Your task to perform on an android device: see creations saved in the google photos Image 0: 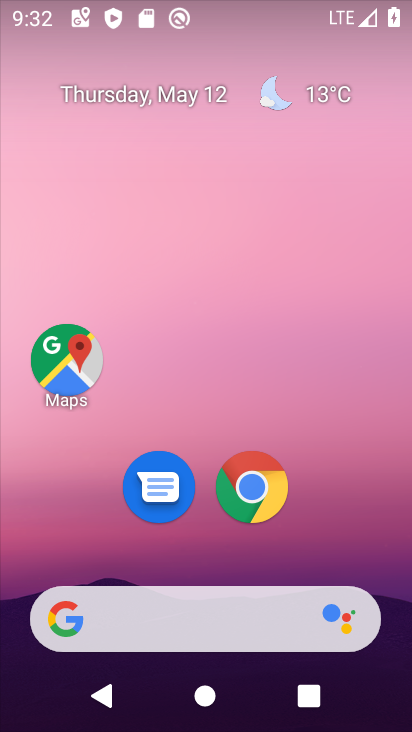
Step 0: drag from (347, 561) to (343, 16)
Your task to perform on an android device: see creations saved in the google photos Image 1: 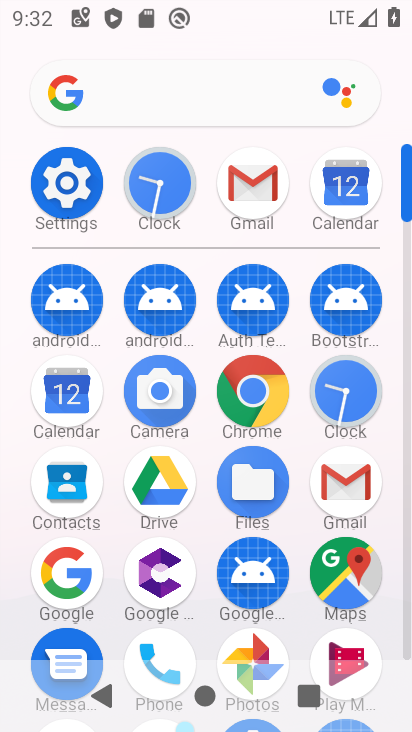
Step 1: click (253, 645)
Your task to perform on an android device: see creations saved in the google photos Image 2: 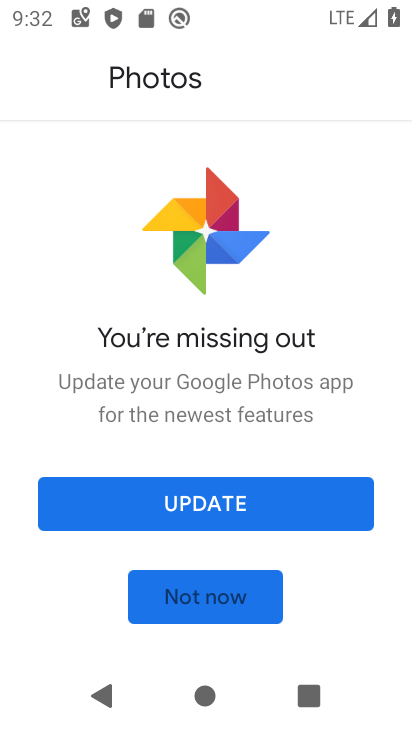
Step 2: click (238, 600)
Your task to perform on an android device: see creations saved in the google photos Image 3: 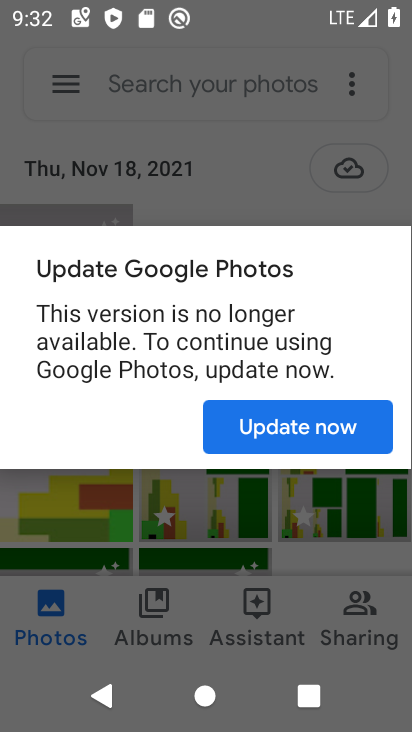
Step 3: click (271, 441)
Your task to perform on an android device: see creations saved in the google photos Image 4: 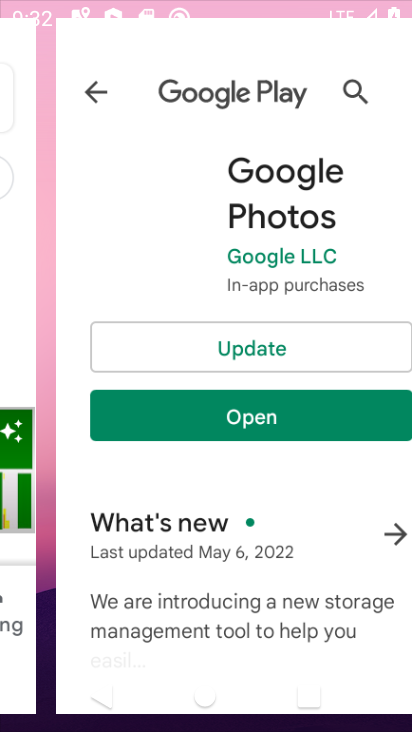
Step 4: click (280, 428)
Your task to perform on an android device: see creations saved in the google photos Image 5: 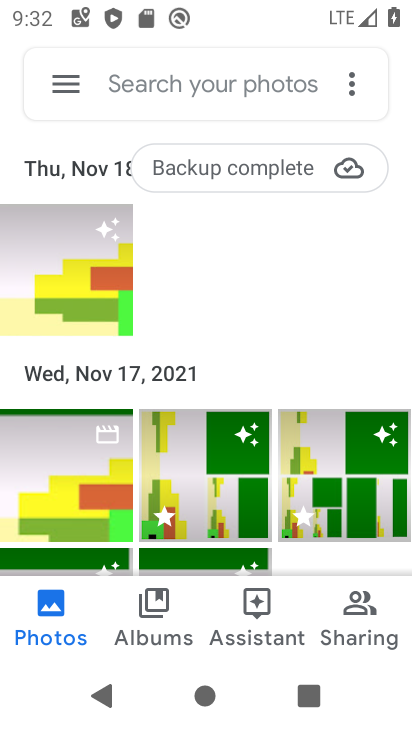
Step 5: click (140, 82)
Your task to perform on an android device: see creations saved in the google photos Image 6: 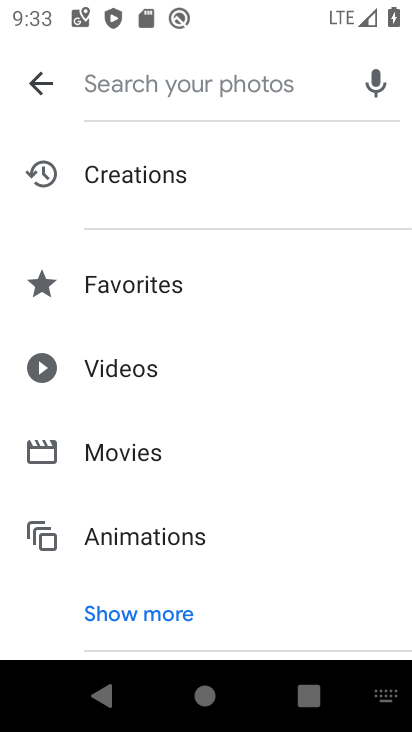
Step 6: click (167, 177)
Your task to perform on an android device: see creations saved in the google photos Image 7: 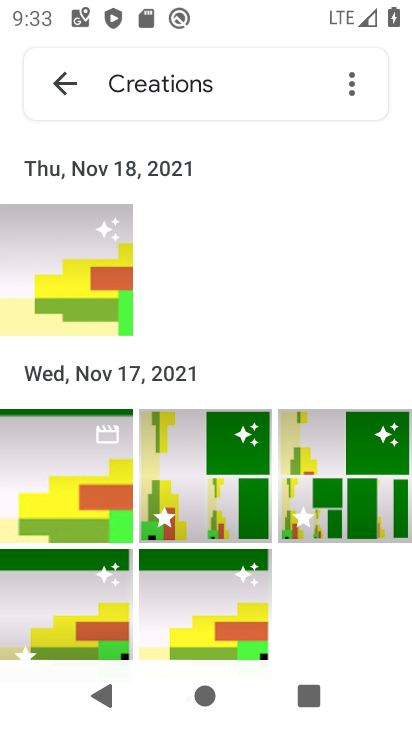
Step 7: task complete